Your task to perform on an android device: Go to Amazon Image 0: 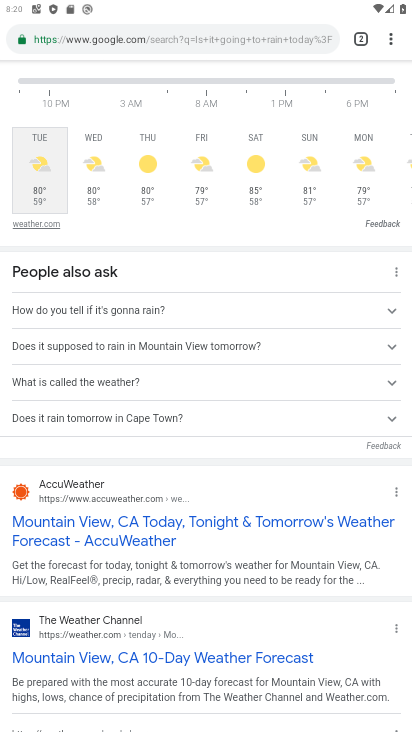
Step 0: drag from (164, 584) to (204, 286)
Your task to perform on an android device: Go to Amazon Image 1: 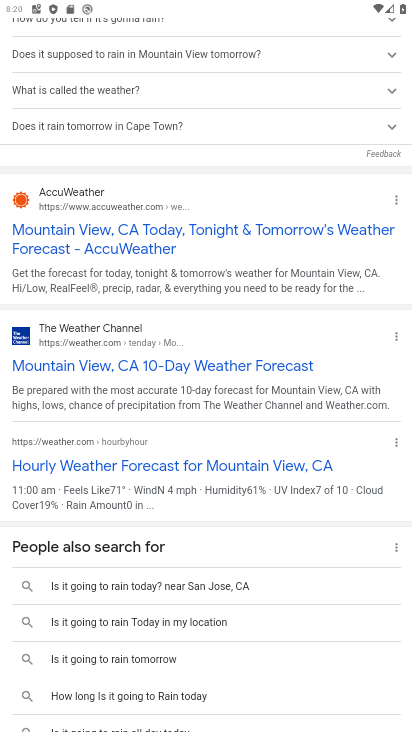
Step 1: drag from (212, 515) to (226, 239)
Your task to perform on an android device: Go to Amazon Image 2: 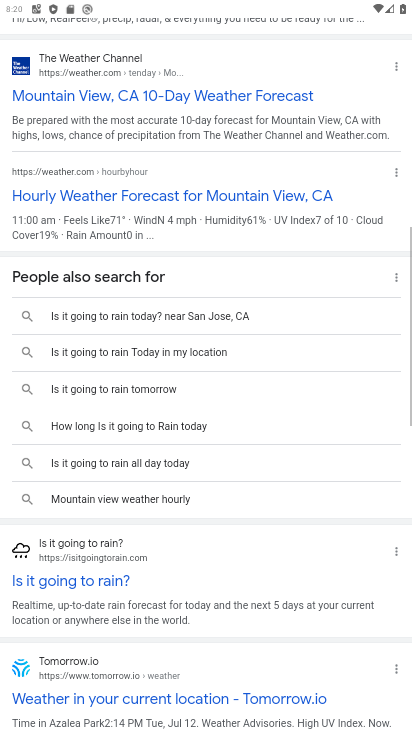
Step 2: drag from (247, 175) to (385, 461)
Your task to perform on an android device: Go to Amazon Image 3: 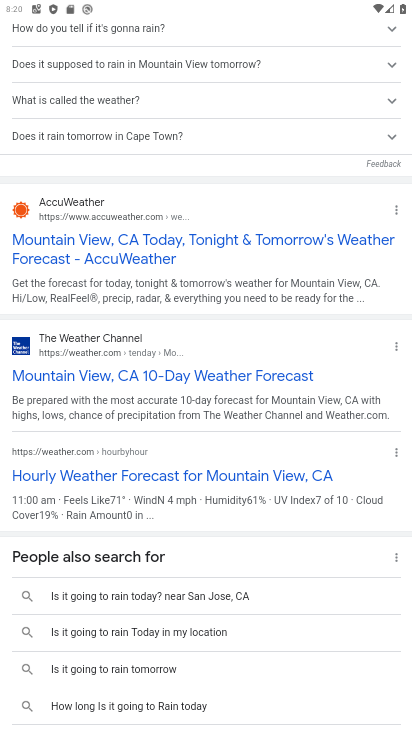
Step 3: drag from (164, 178) to (315, 696)
Your task to perform on an android device: Go to Amazon Image 4: 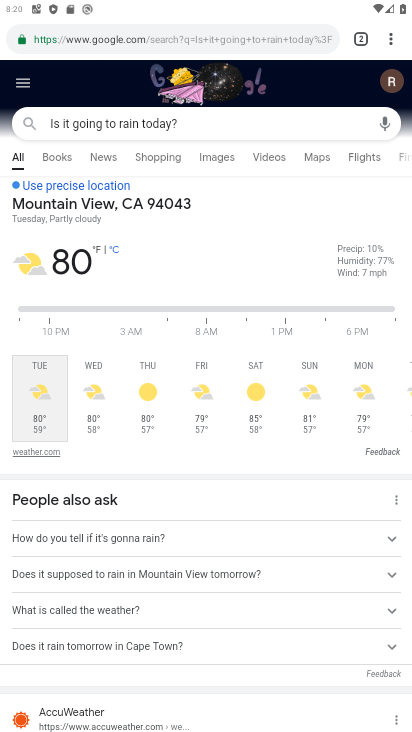
Step 4: drag from (209, 141) to (181, 686)
Your task to perform on an android device: Go to Amazon Image 5: 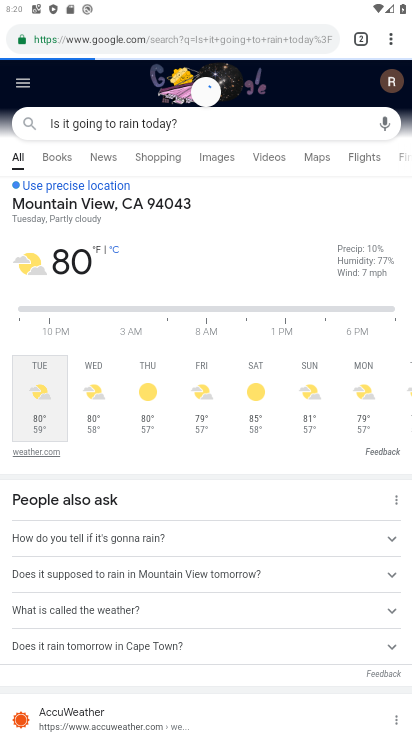
Step 5: click (360, 37)
Your task to perform on an android device: Go to Amazon Image 6: 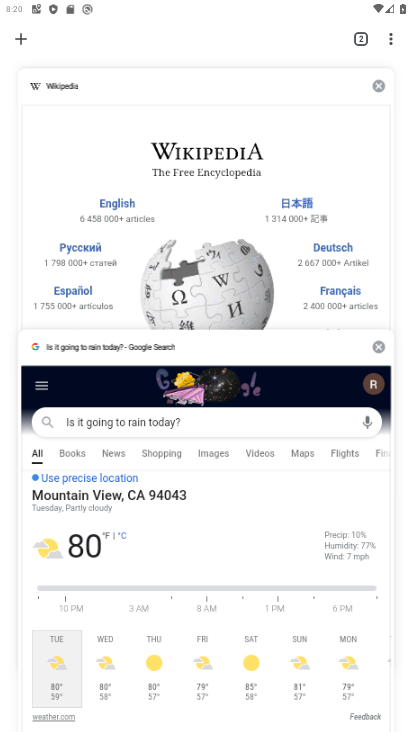
Step 6: click (21, 32)
Your task to perform on an android device: Go to Amazon Image 7: 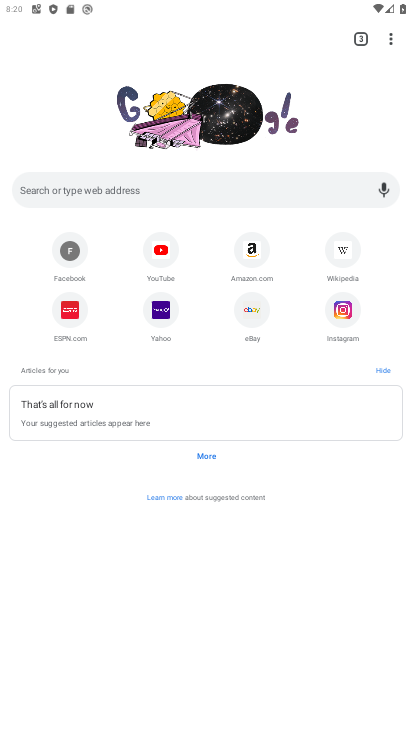
Step 7: click (257, 255)
Your task to perform on an android device: Go to Amazon Image 8: 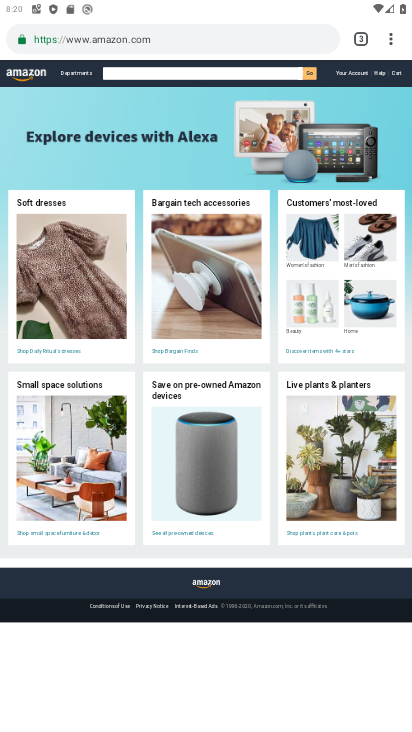
Step 8: task complete